Your task to perform on an android device: What's a good restaurant in New Jersey? Image 0: 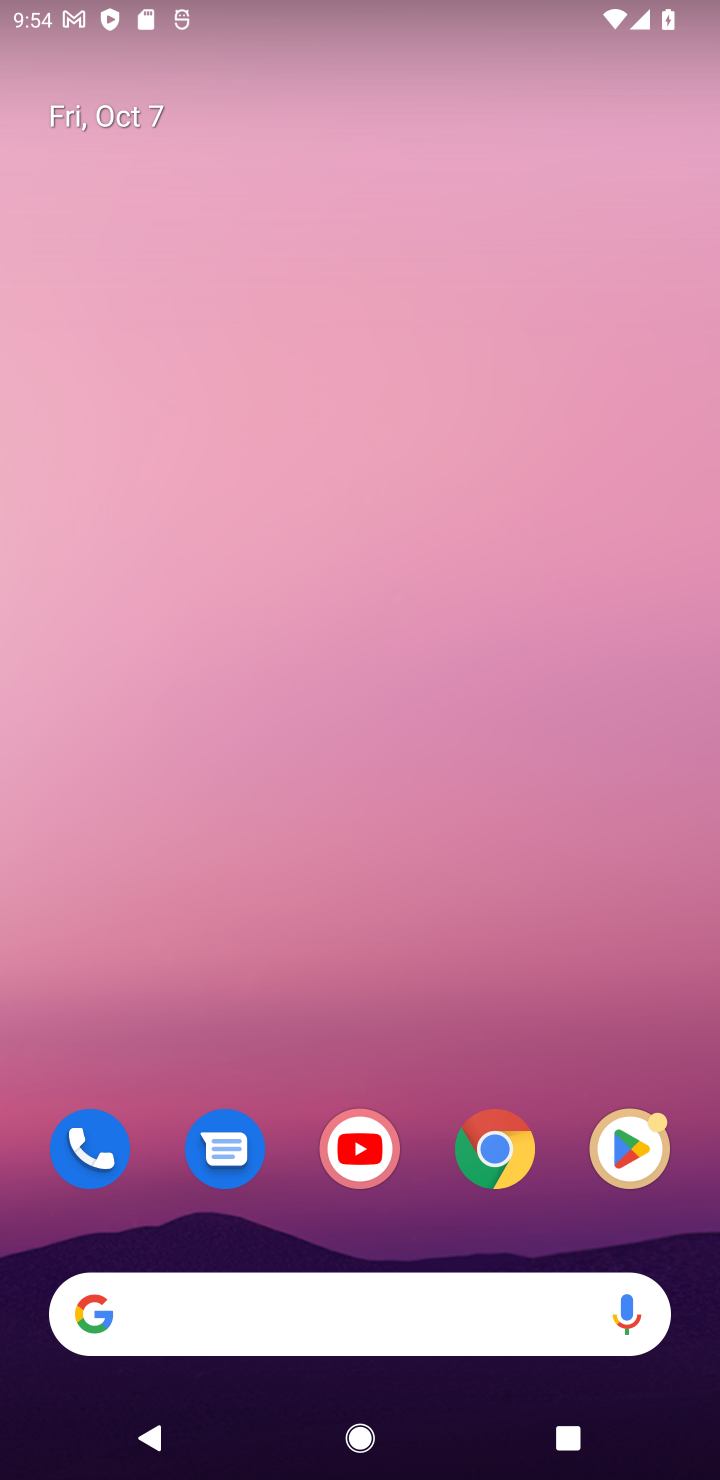
Step 0: click (334, 1293)
Your task to perform on an android device: What's a good restaurant in New Jersey? Image 1: 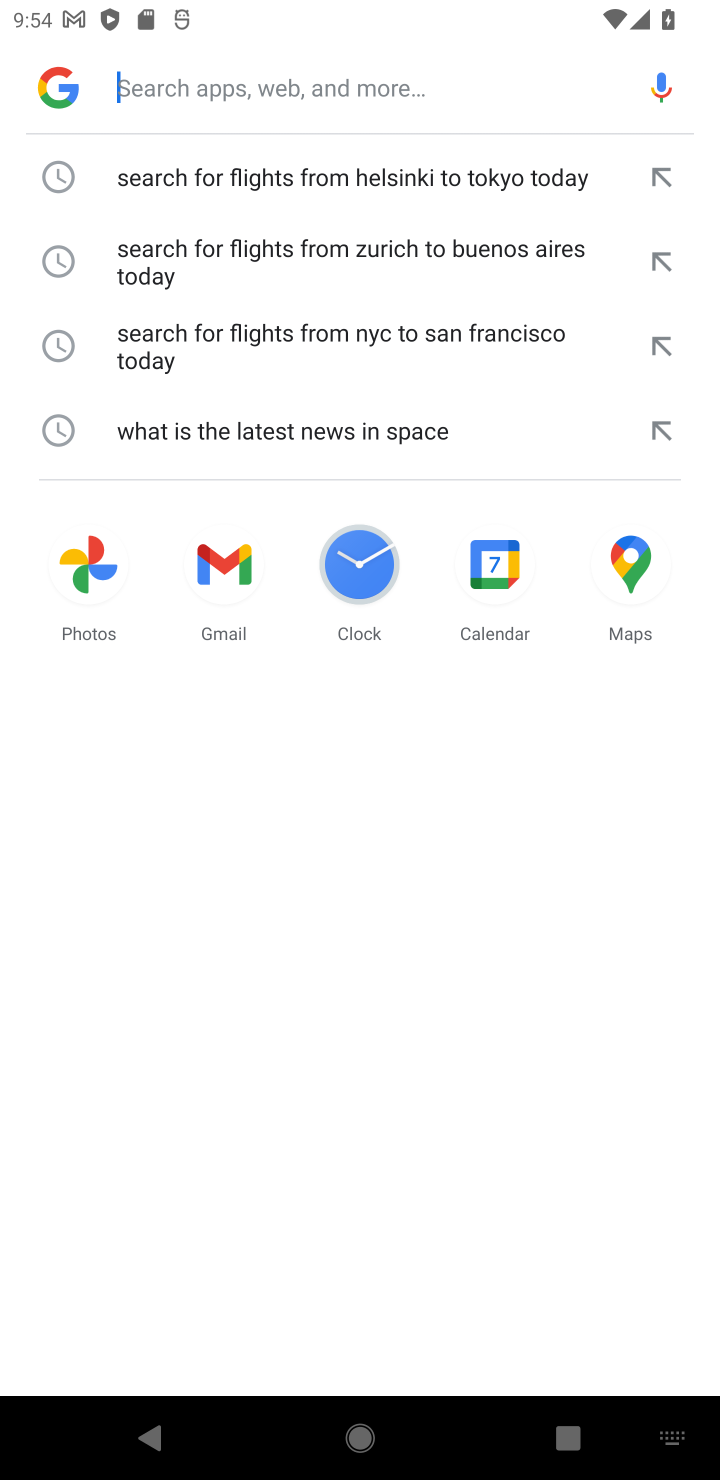
Step 1: type "What's a good restaurant in New Jersey?"
Your task to perform on an android device: What's a good restaurant in New Jersey? Image 2: 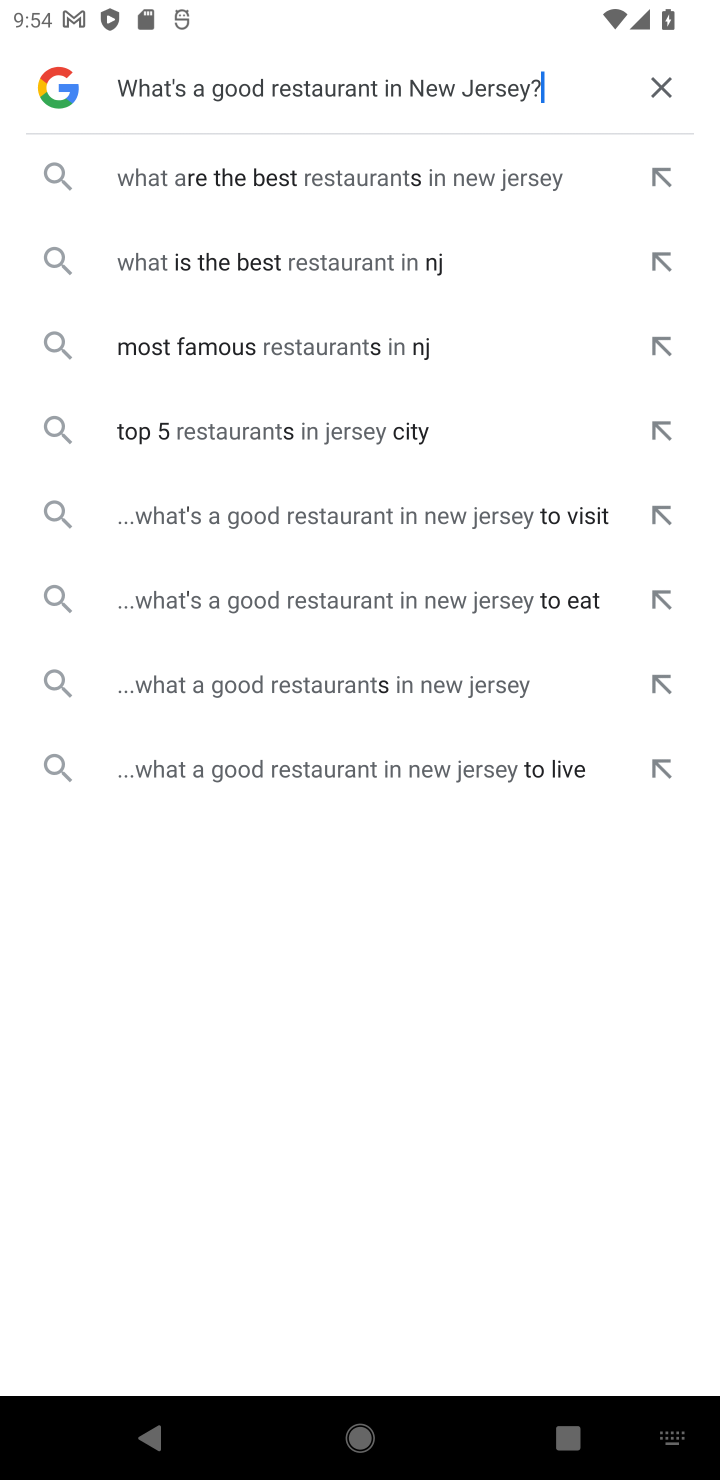
Step 2: click (368, 188)
Your task to perform on an android device: What's a good restaurant in New Jersey? Image 3: 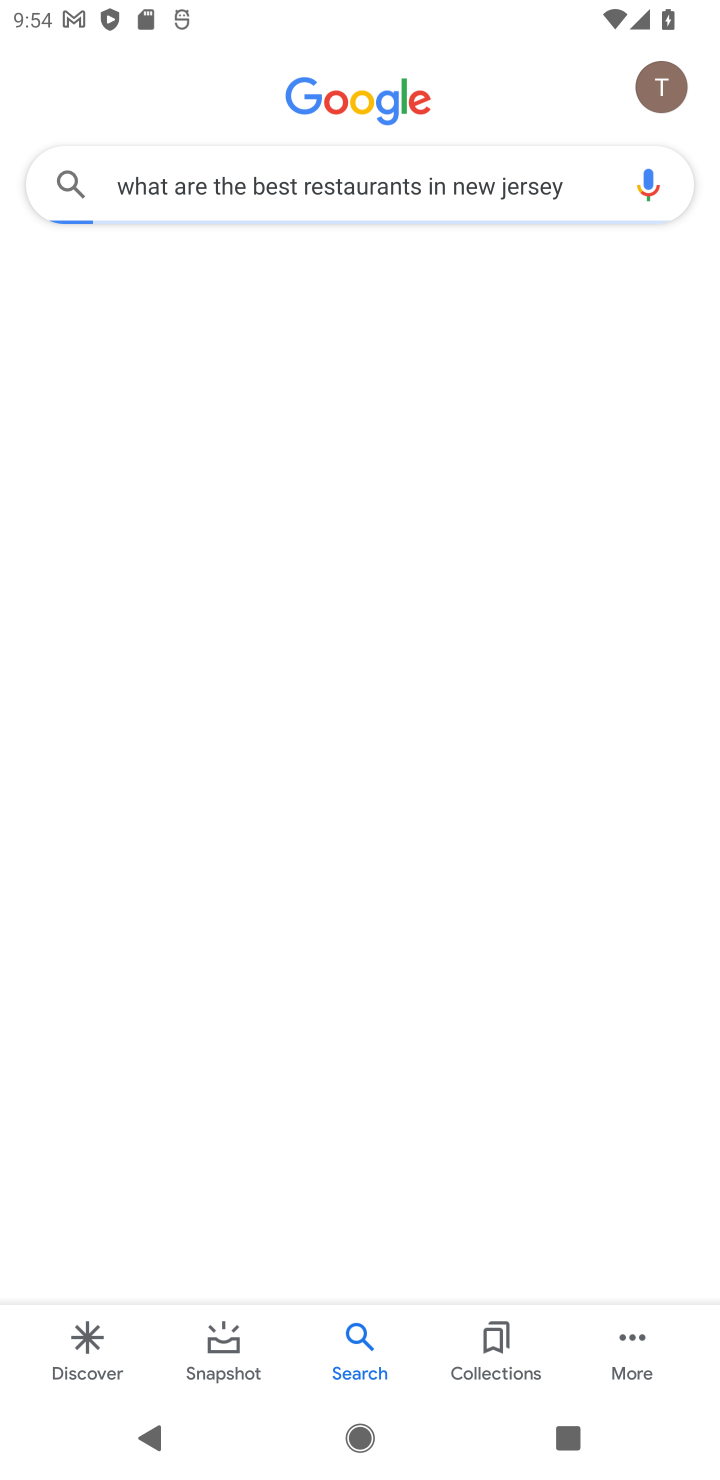
Step 3: task complete